Your task to perform on an android device: delete location history Image 0: 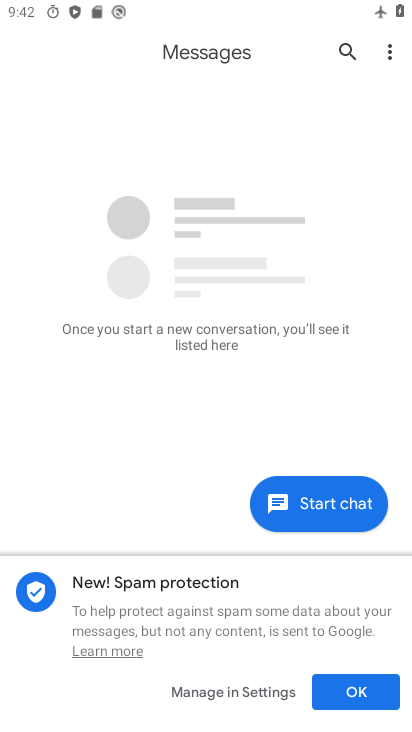
Step 0: press back button
Your task to perform on an android device: delete location history Image 1: 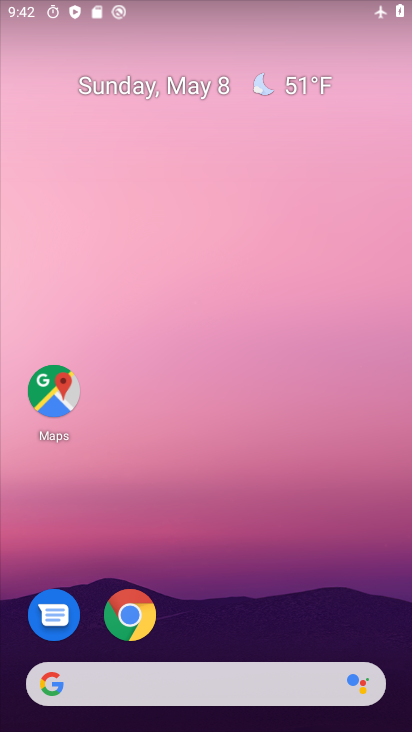
Step 1: drag from (234, 614) to (256, 147)
Your task to perform on an android device: delete location history Image 2: 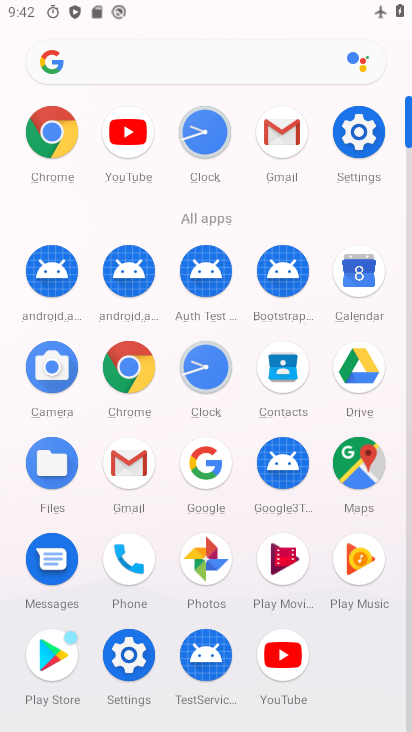
Step 2: click (349, 463)
Your task to perform on an android device: delete location history Image 3: 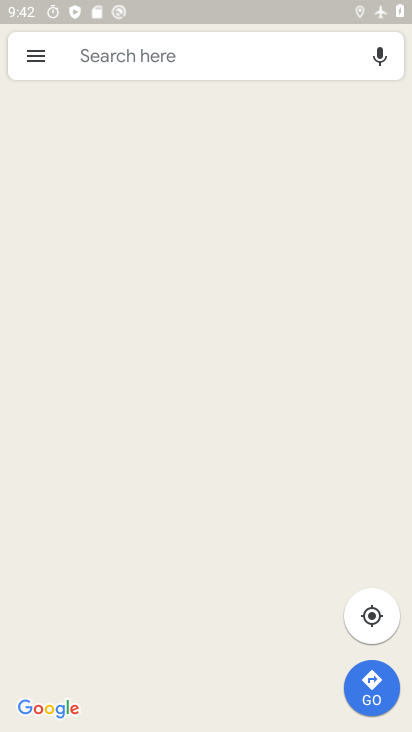
Step 3: click (22, 49)
Your task to perform on an android device: delete location history Image 4: 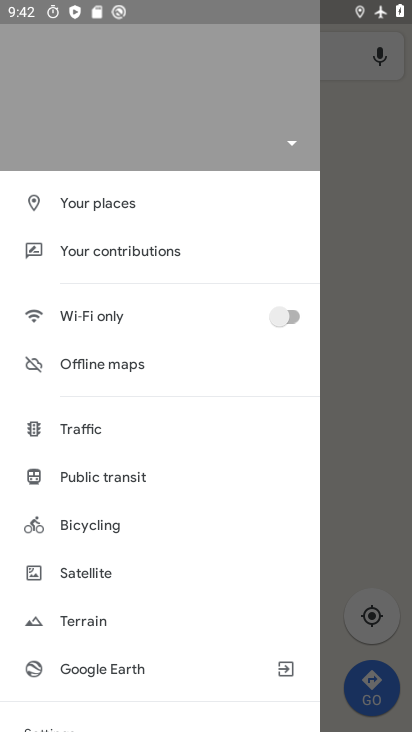
Step 4: click (162, 251)
Your task to perform on an android device: delete location history Image 5: 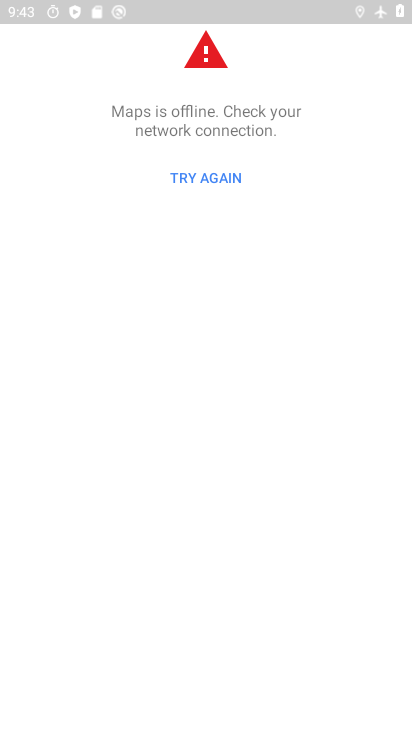
Step 5: task complete